Your task to perform on an android device: open chrome privacy settings Image 0: 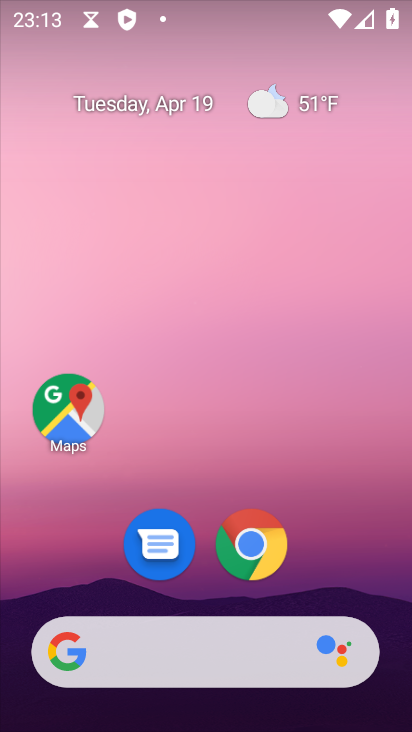
Step 0: click (251, 543)
Your task to perform on an android device: open chrome privacy settings Image 1: 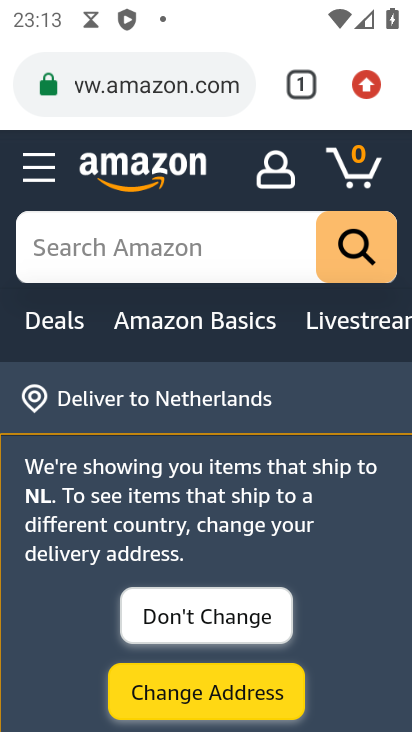
Step 1: click (377, 83)
Your task to perform on an android device: open chrome privacy settings Image 2: 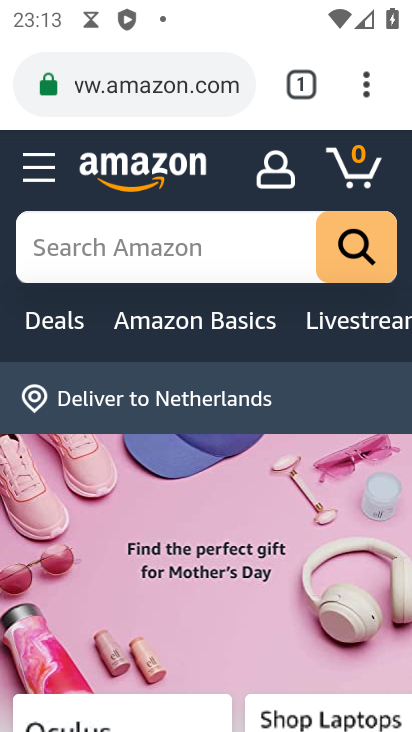
Step 2: click (371, 89)
Your task to perform on an android device: open chrome privacy settings Image 3: 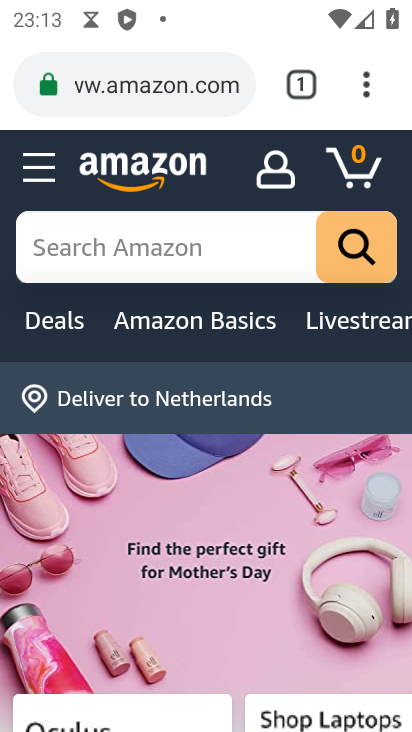
Step 3: click (371, 89)
Your task to perform on an android device: open chrome privacy settings Image 4: 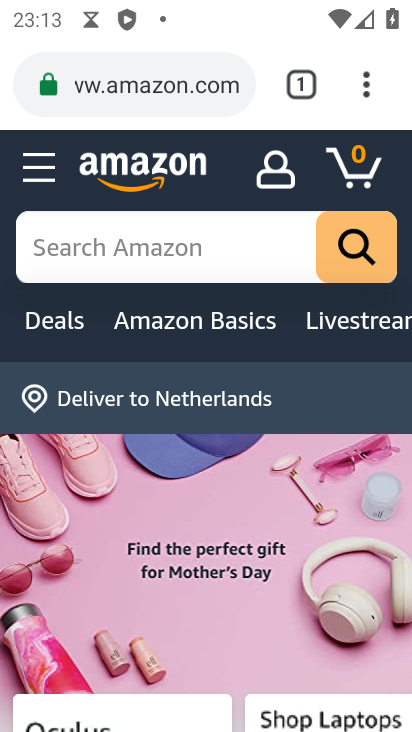
Step 4: click (377, 86)
Your task to perform on an android device: open chrome privacy settings Image 5: 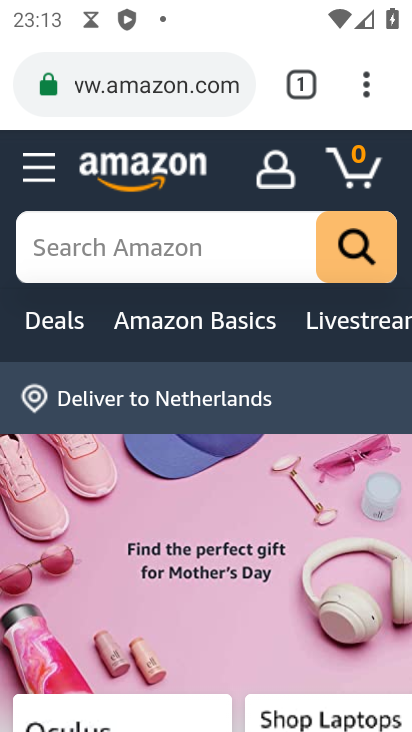
Step 5: click (377, 86)
Your task to perform on an android device: open chrome privacy settings Image 6: 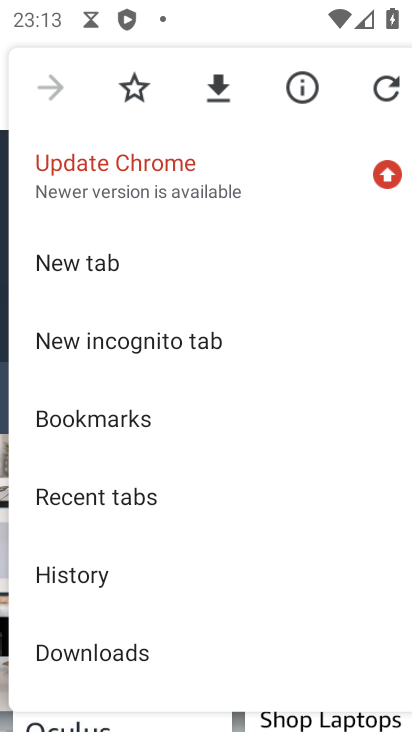
Step 6: drag from (124, 639) to (173, 458)
Your task to perform on an android device: open chrome privacy settings Image 7: 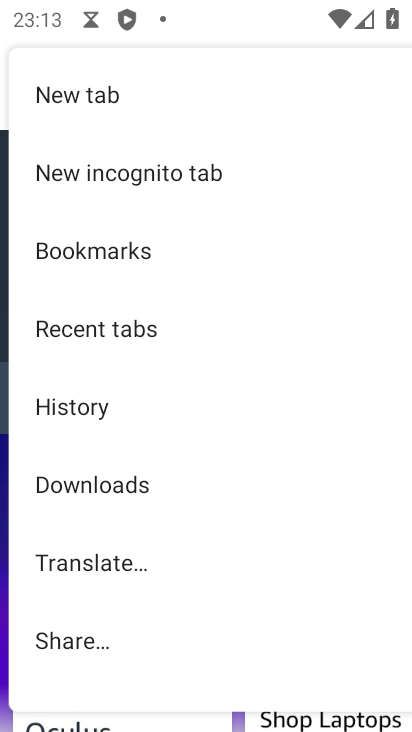
Step 7: drag from (127, 607) to (147, 497)
Your task to perform on an android device: open chrome privacy settings Image 8: 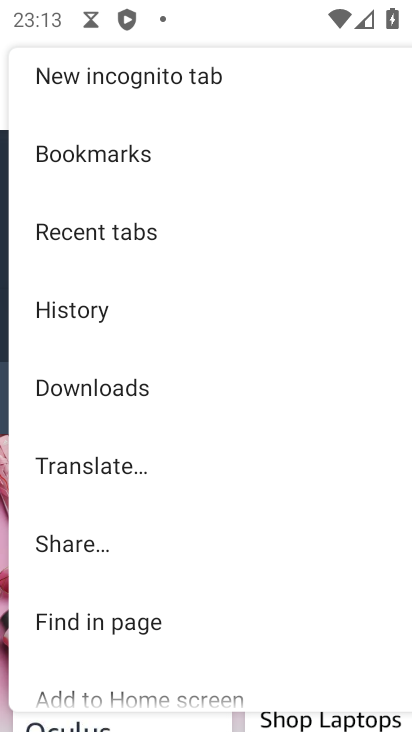
Step 8: drag from (130, 623) to (140, 553)
Your task to perform on an android device: open chrome privacy settings Image 9: 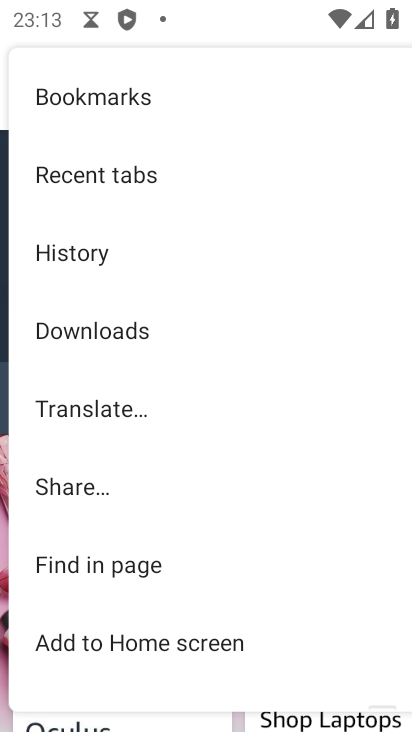
Step 9: drag from (146, 635) to (144, 549)
Your task to perform on an android device: open chrome privacy settings Image 10: 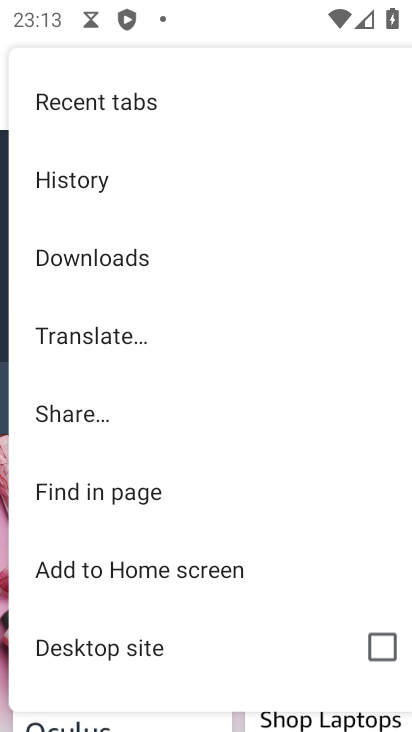
Step 10: drag from (146, 632) to (140, 549)
Your task to perform on an android device: open chrome privacy settings Image 11: 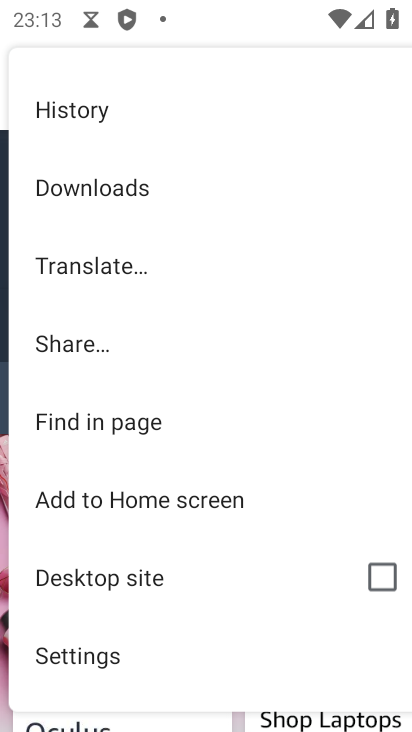
Step 11: click (132, 637)
Your task to perform on an android device: open chrome privacy settings Image 12: 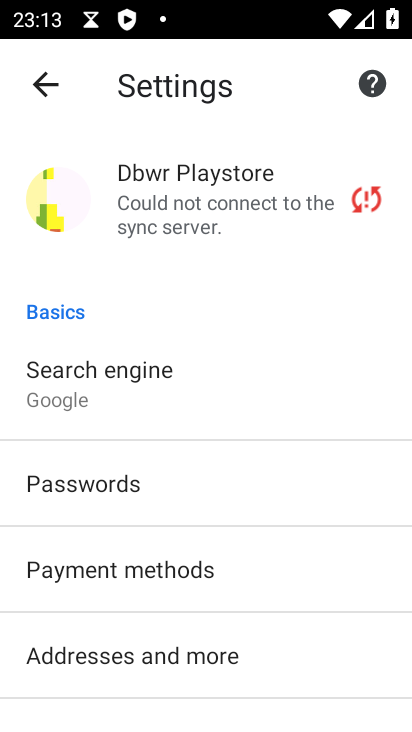
Step 12: drag from (133, 636) to (140, 574)
Your task to perform on an android device: open chrome privacy settings Image 13: 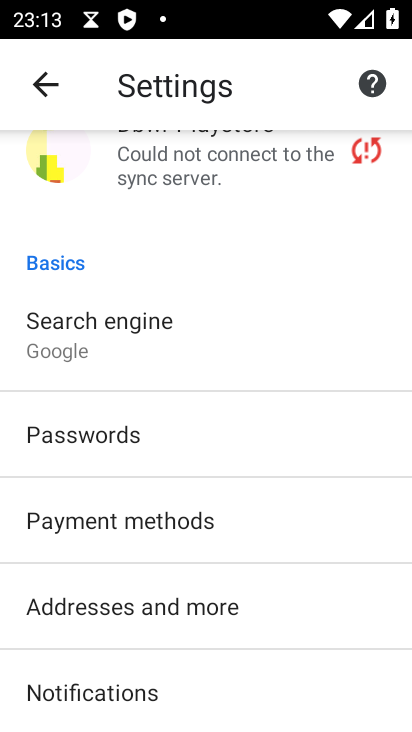
Step 13: drag from (140, 649) to (144, 590)
Your task to perform on an android device: open chrome privacy settings Image 14: 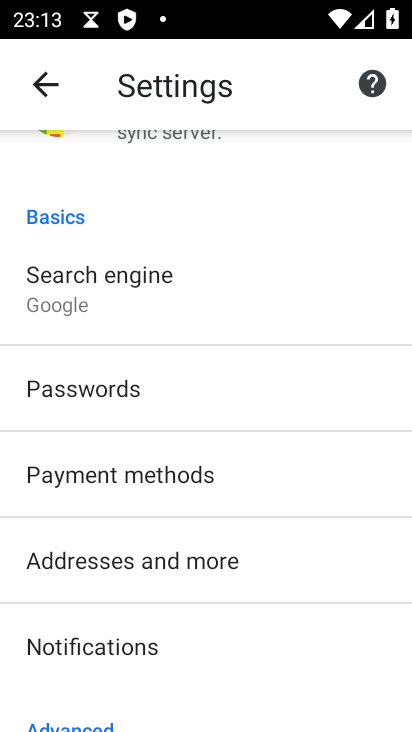
Step 14: drag from (159, 657) to (165, 580)
Your task to perform on an android device: open chrome privacy settings Image 15: 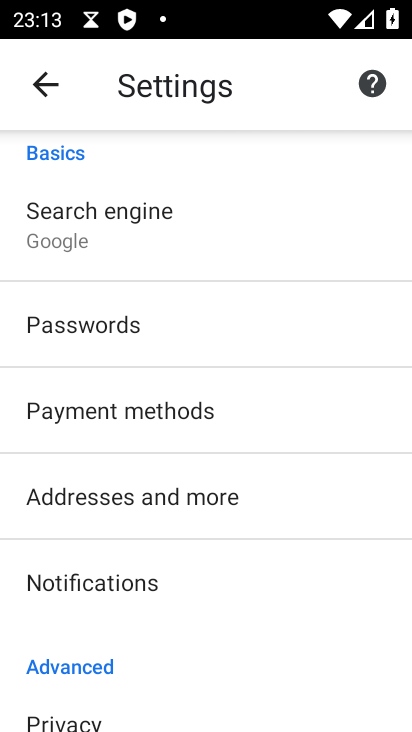
Step 15: drag from (165, 648) to (172, 558)
Your task to perform on an android device: open chrome privacy settings Image 16: 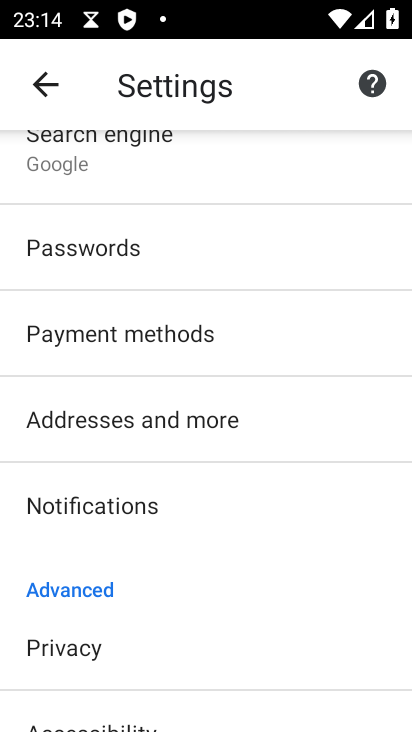
Step 16: click (108, 643)
Your task to perform on an android device: open chrome privacy settings Image 17: 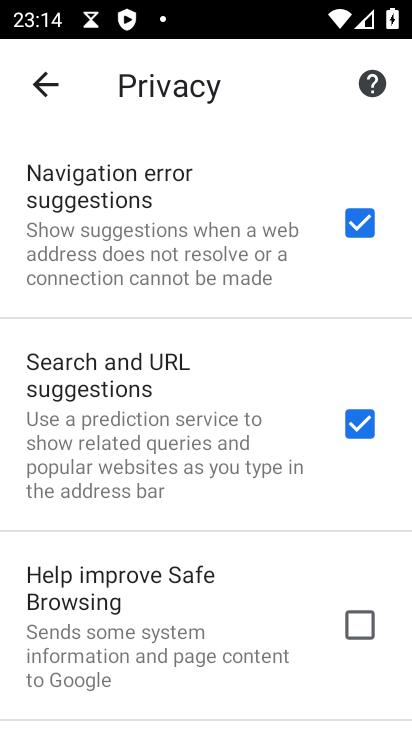
Step 17: task complete